Your task to perform on an android device: visit the assistant section in the google photos Image 0: 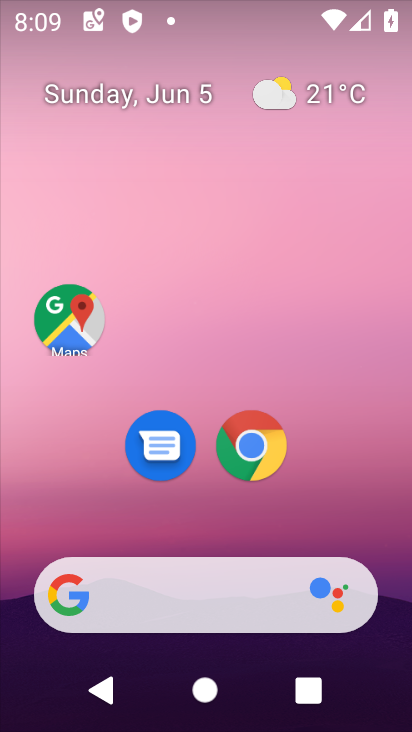
Step 0: drag from (327, 335) to (305, 120)
Your task to perform on an android device: visit the assistant section in the google photos Image 1: 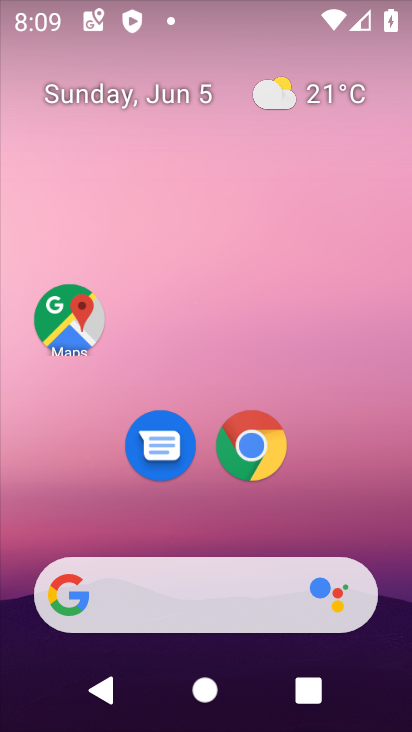
Step 1: drag from (309, 506) to (329, 3)
Your task to perform on an android device: visit the assistant section in the google photos Image 2: 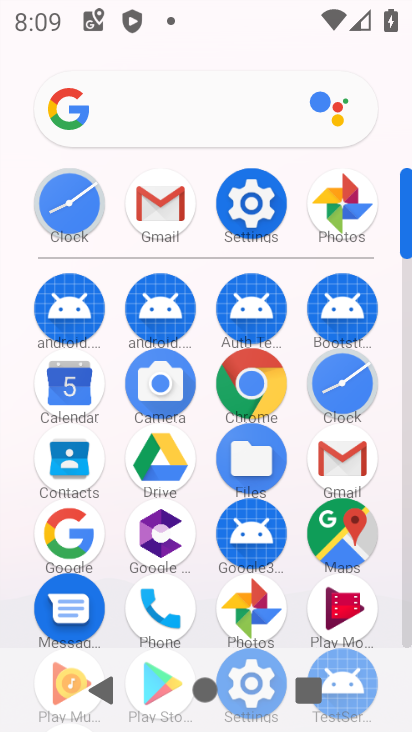
Step 2: click (356, 203)
Your task to perform on an android device: visit the assistant section in the google photos Image 3: 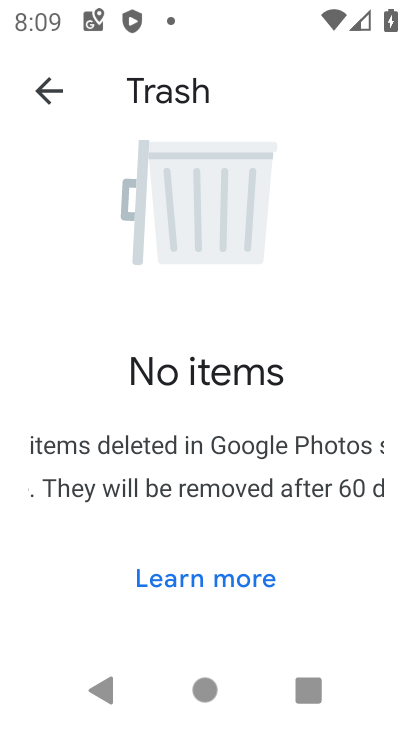
Step 3: click (51, 84)
Your task to perform on an android device: visit the assistant section in the google photos Image 4: 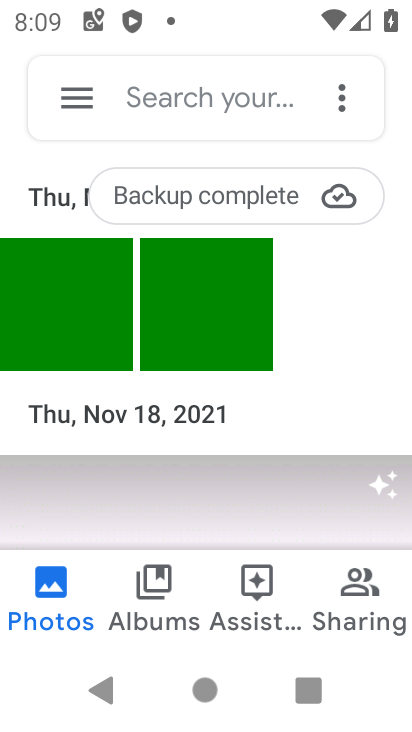
Step 4: click (248, 577)
Your task to perform on an android device: visit the assistant section in the google photos Image 5: 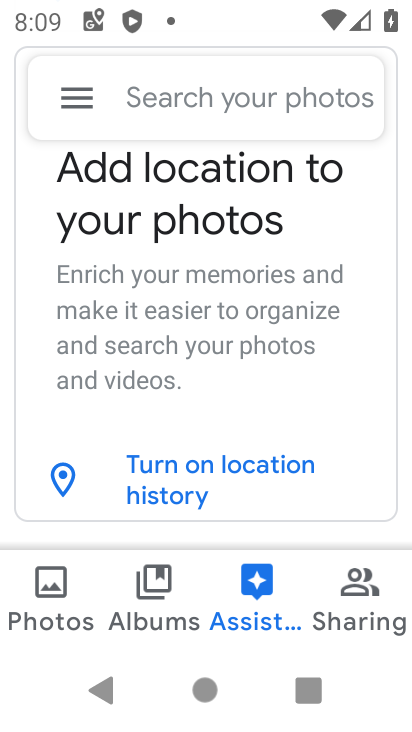
Step 5: task complete